Your task to perform on an android device: clear all cookies in the chrome app Image 0: 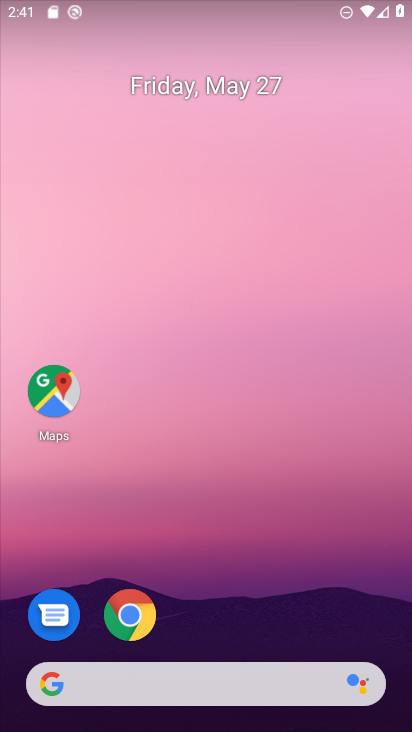
Step 0: click (134, 607)
Your task to perform on an android device: clear all cookies in the chrome app Image 1: 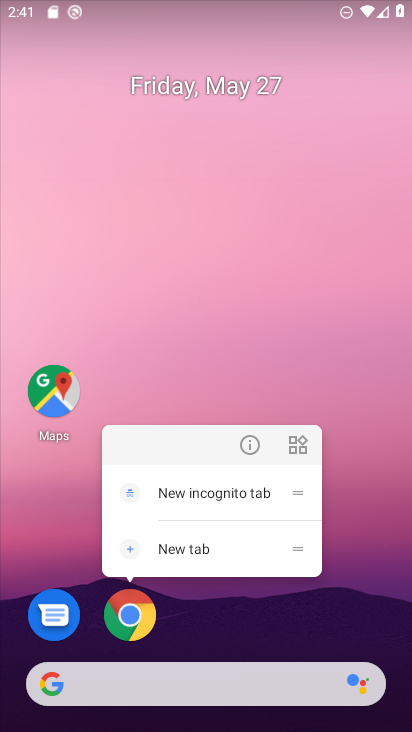
Step 1: click (137, 616)
Your task to perform on an android device: clear all cookies in the chrome app Image 2: 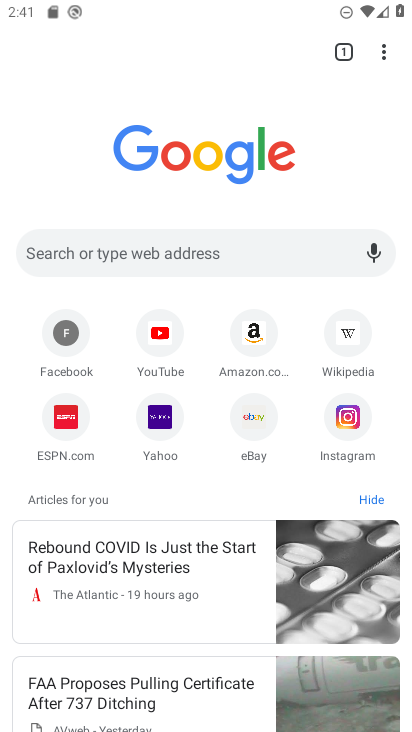
Step 2: click (382, 42)
Your task to perform on an android device: clear all cookies in the chrome app Image 3: 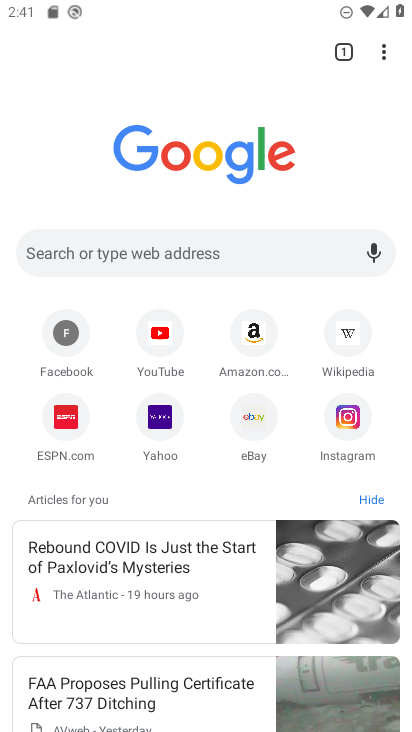
Step 3: click (374, 49)
Your task to perform on an android device: clear all cookies in the chrome app Image 4: 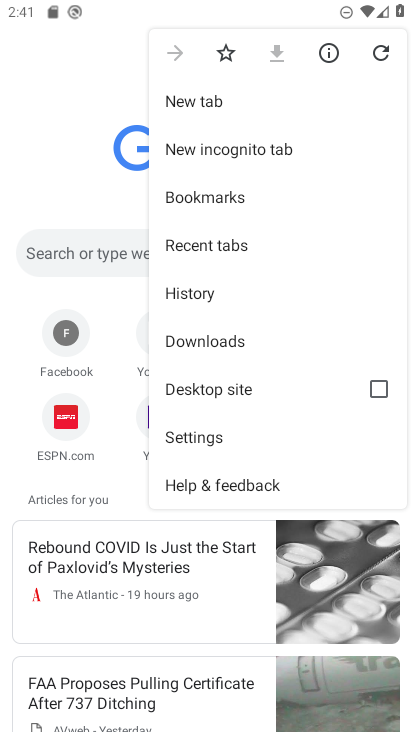
Step 4: click (217, 292)
Your task to perform on an android device: clear all cookies in the chrome app Image 5: 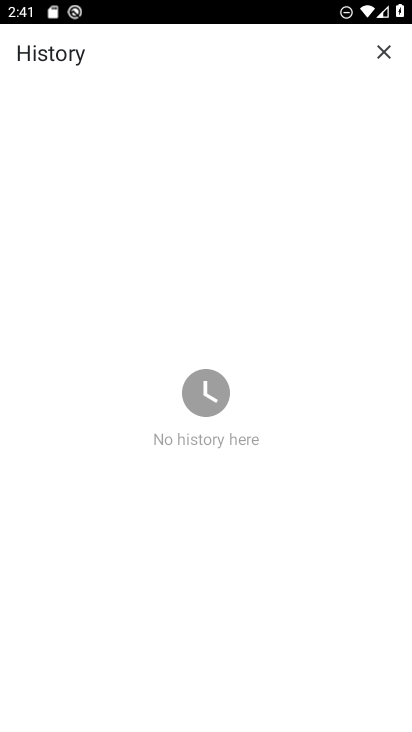
Step 5: task complete